Your task to perform on an android device: Open calendar and show me the first week of next month Image 0: 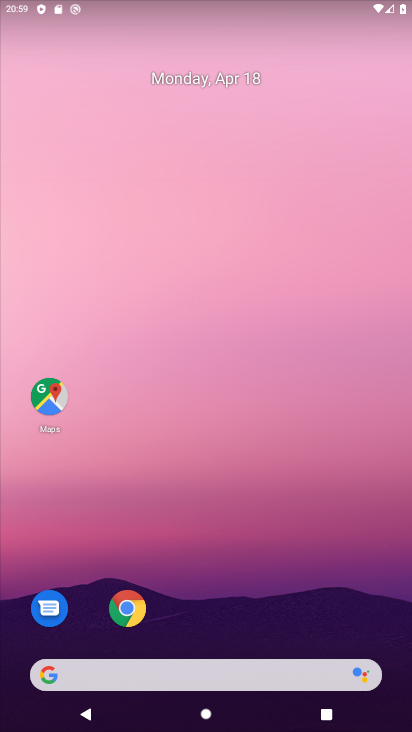
Step 0: click (248, 230)
Your task to perform on an android device: Open calendar and show me the first week of next month Image 1: 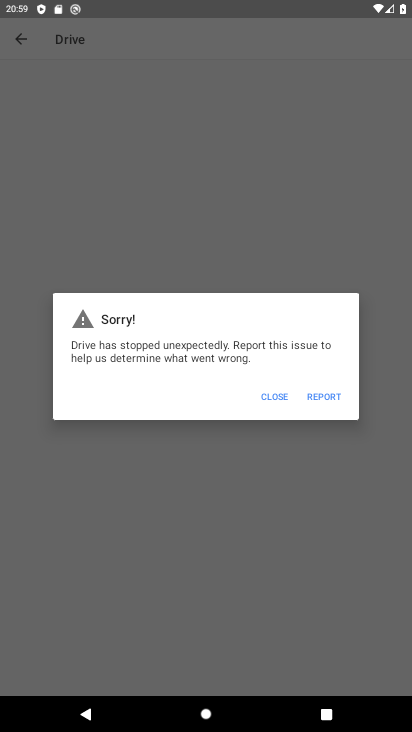
Step 1: press home button
Your task to perform on an android device: Open calendar and show me the first week of next month Image 2: 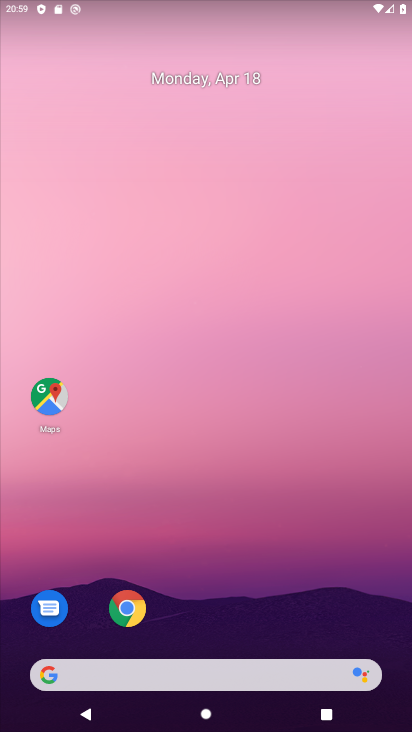
Step 2: drag from (235, 510) to (266, 167)
Your task to perform on an android device: Open calendar and show me the first week of next month Image 3: 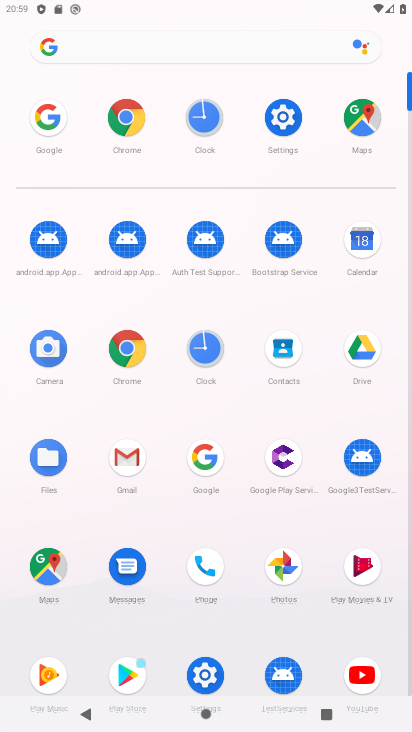
Step 3: click (362, 241)
Your task to perform on an android device: Open calendar and show me the first week of next month Image 4: 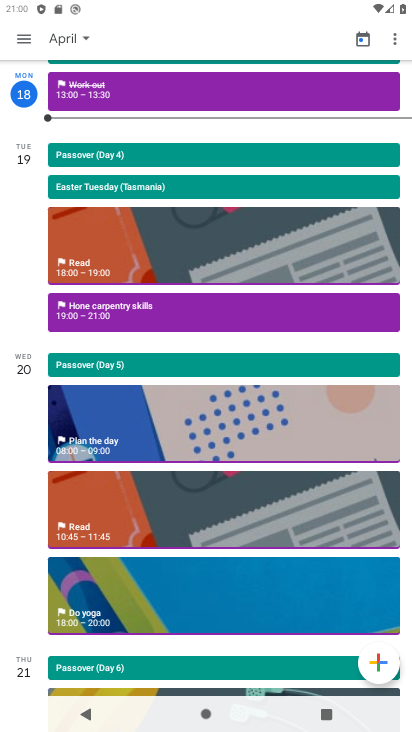
Step 4: click (82, 33)
Your task to perform on an android device: Open calendar and show me the first week of next month Image 5: 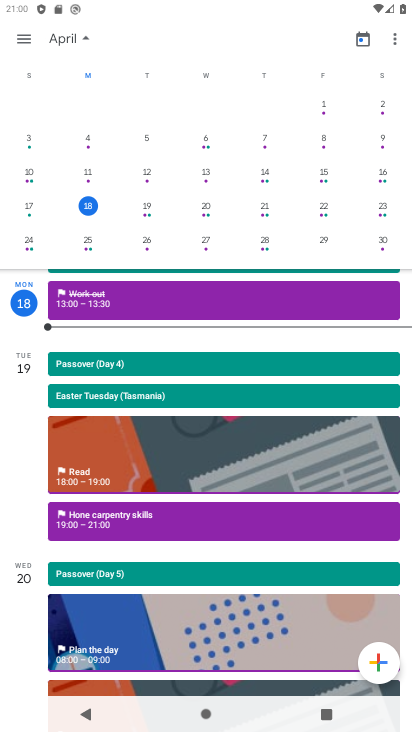
Step 5: drag from (367, 256) to (9, 249)
Your task to perform on an android device: Open calendar and show me the first week of next month Image 6: 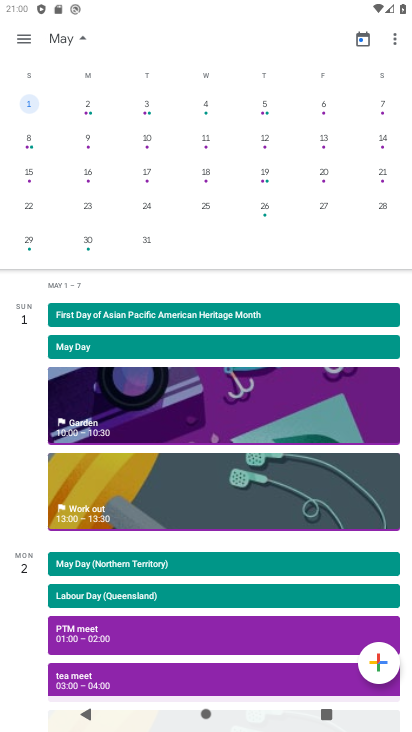
Step 6: click (145, 105)
Your task to perform on an android device: Open calendar and show me the first week of next month Image 7: 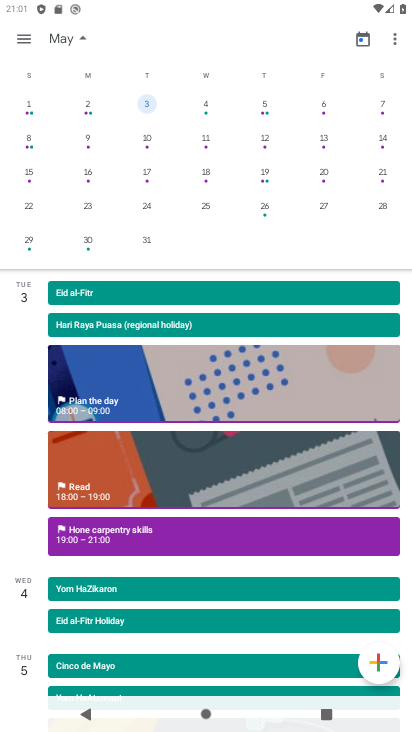
Step 7: task complete